Your task to perform on an android device: turn on showing notifications on the lock screen Image 0: 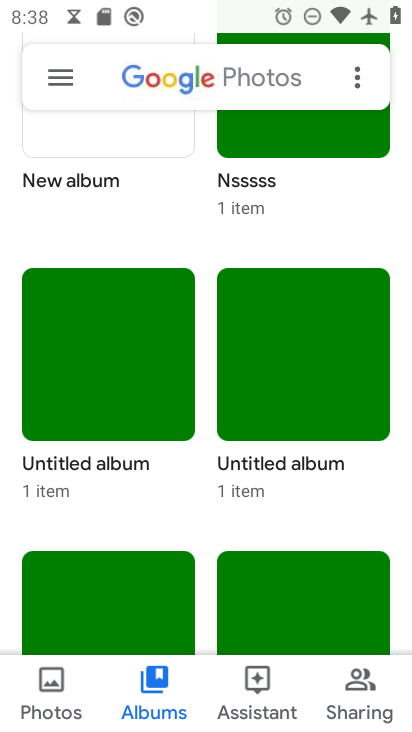
Step 0: press home button
Your task to perform on an android device: turn on showing notifications on the lock screen Image 1: 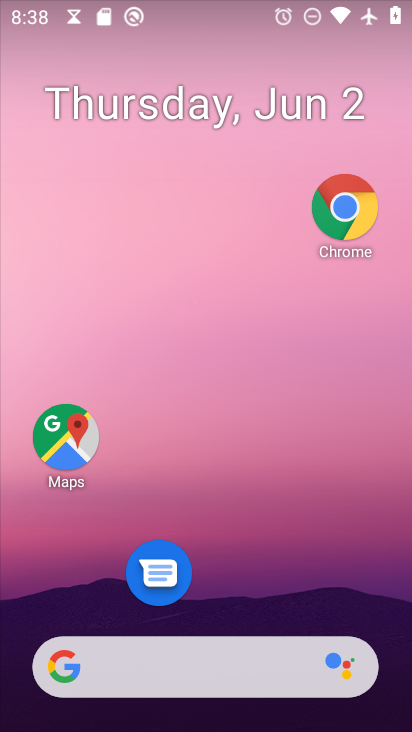
Step 1: drag from (150, 669) to (262, 167)
Your task to perform on an android device: turn on showing notifications on the lock screen Image 2: 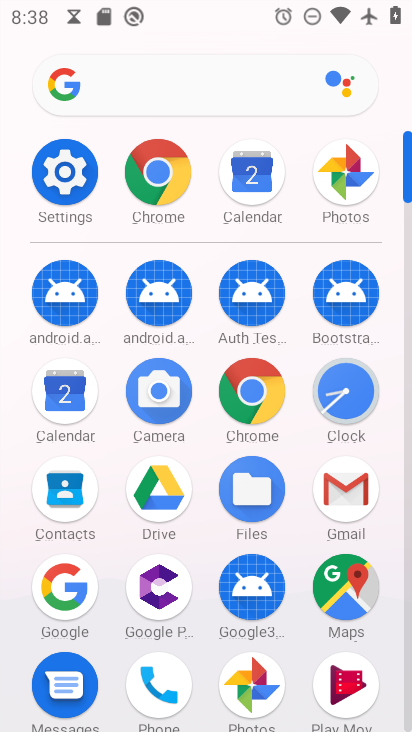
Step 2: click (65, 177)
Your task to perform on an android device: turn on showing notifications on the lock screen Image 3: 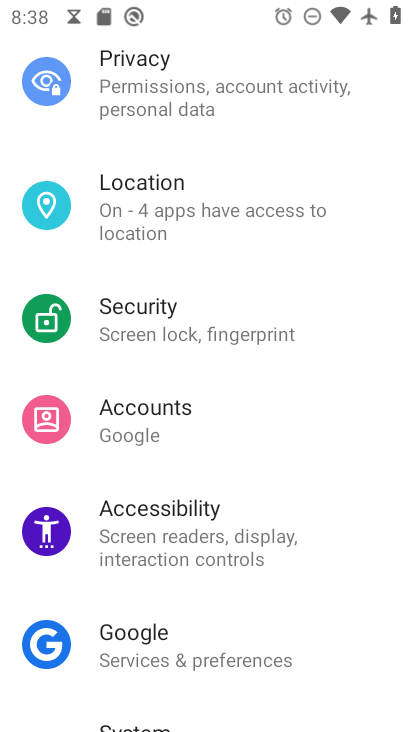
Step 3: drag from (285, 151) to (246, 608)
Your task to perform on an android device: turn on showing notifications on the lock screen Image 4: 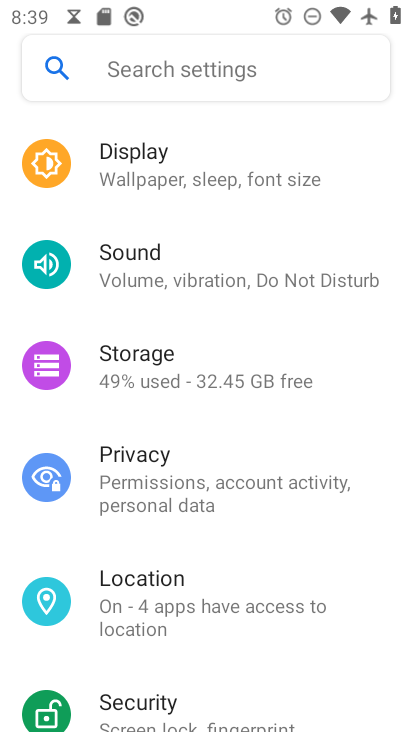
Step 4: drag from (285, 220) to (221, 559)
Your task to perform on an android device: turn on showing notifications on the lock screen Image 5: 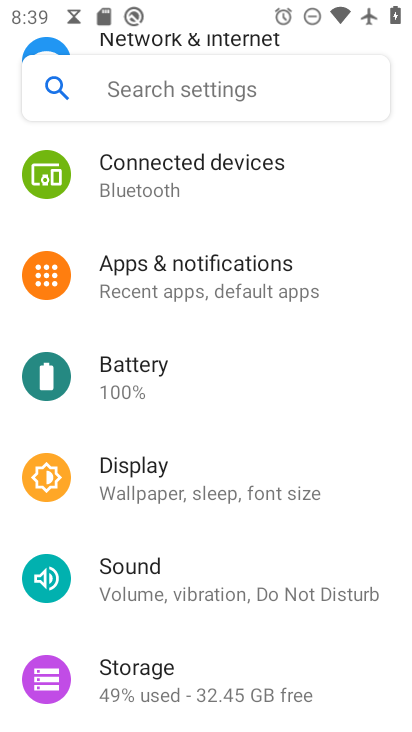
Step 5: click (220, 276)
Your task to perform on an android device: turn on showing notifications on the lock screen Image 6: 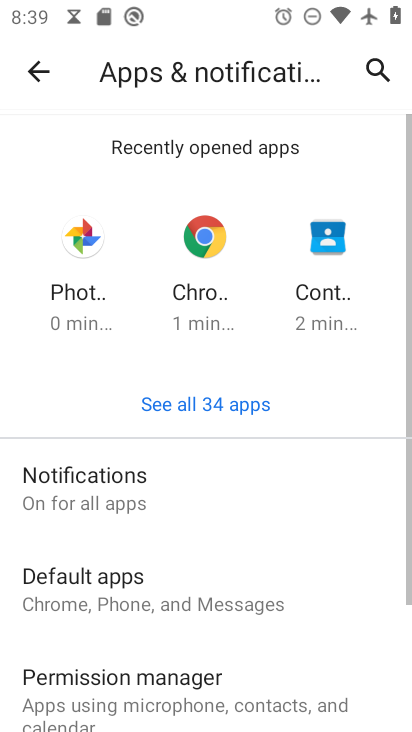
Step 6: click (98, 481)
Your task to perform on an android device: turn on showing notifications on the lock screen Image 7: 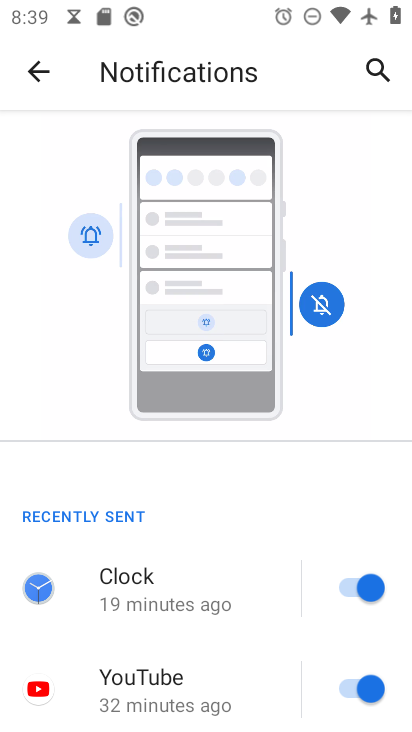
Step 7: drag from (212, 660) to (282, 215)
Your task to perform on an android device: turn on showing notifications on the lock screen Image 8: 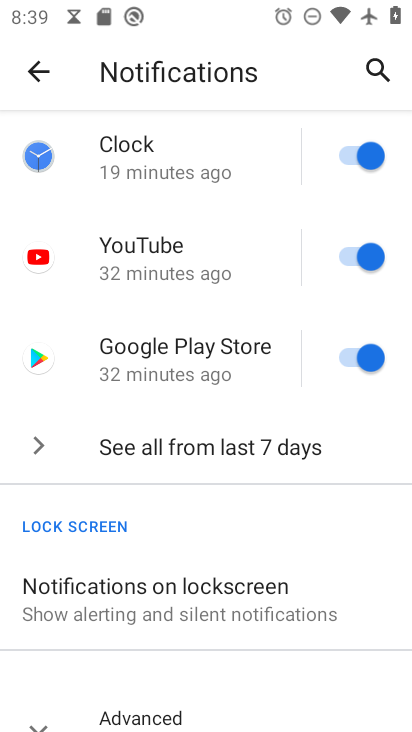
Step 8: click (165, 598)
Your task to perform on an android device: turn on showing notifications on the lock screen Image 9: 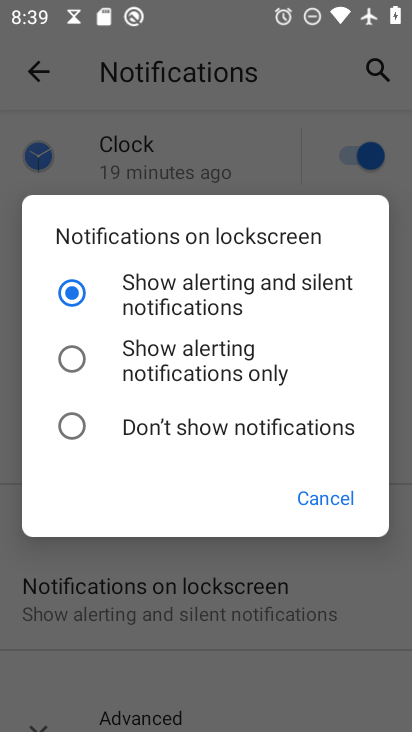
Step 9: task complete